Your task to perform on an android device: Toggle the flashlight Image 0: 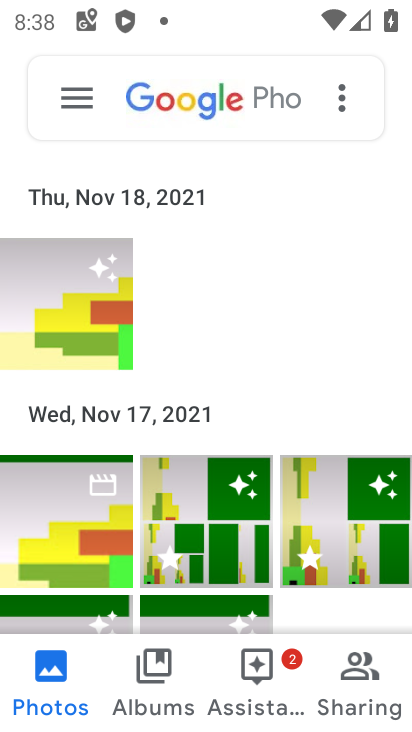
Step 0: drag from (303, 10) to (185, 473)
Your task to perform on an android device: Toggle the flashlight Image 1: 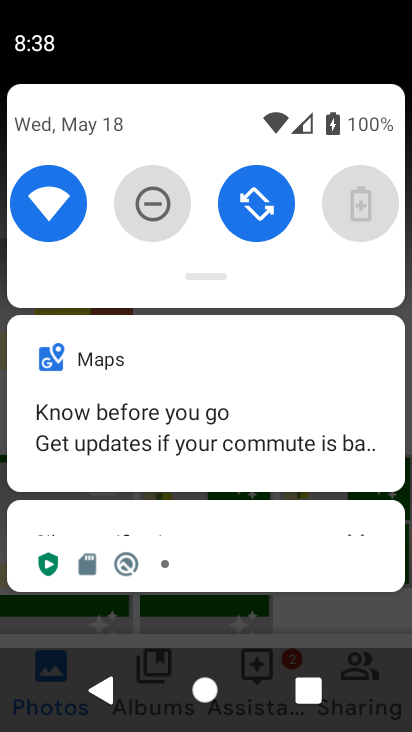
Step 1: task complete